Your task to perform on an android device: refresh tabs in the chrome app Image 0: 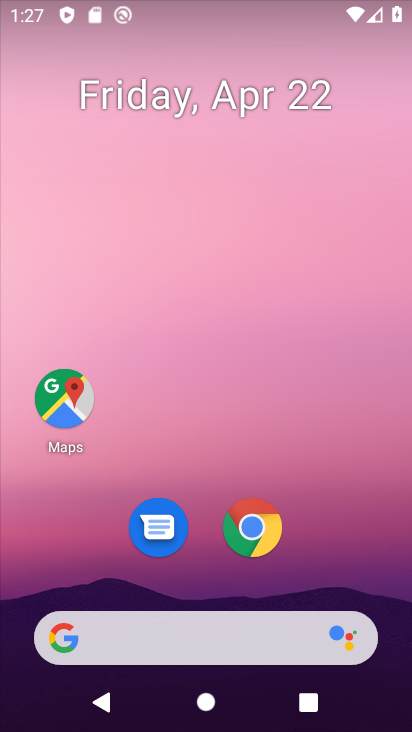
Step 0: drag from (359, 505) to (300, 56)
Your task to perform on an android device: refresh tabs in the chrome app Image 1: 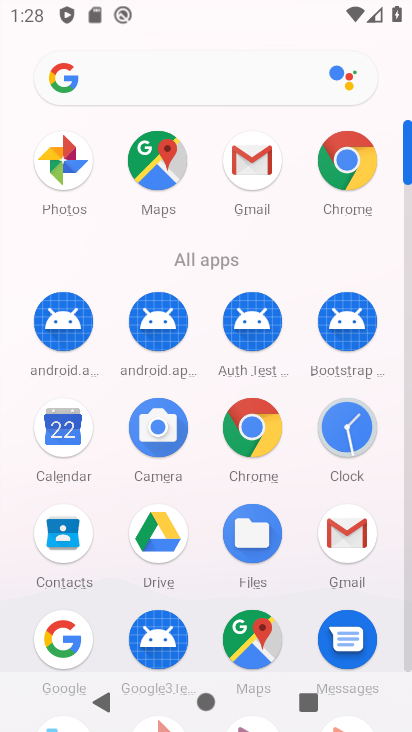
Step 1: click (241, 429)
Your task to perform on an android device: refresh tabs in the chrome app Image 2: 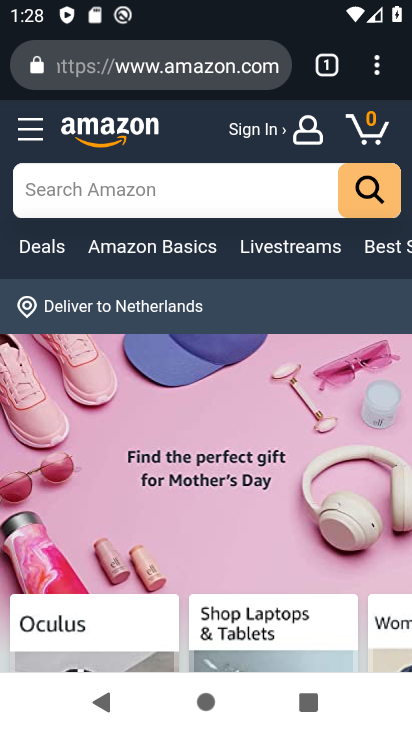
Step 2: press back button
Your task to perform on an android device: refresh tabs in the chrome app Image 3: 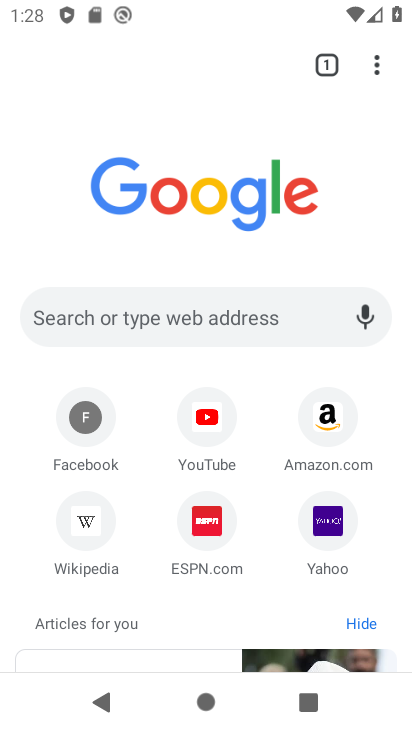
Step 3: click (375, 57)
Your task to perform on an android device: refresh tabs in the chrome app Image 4: 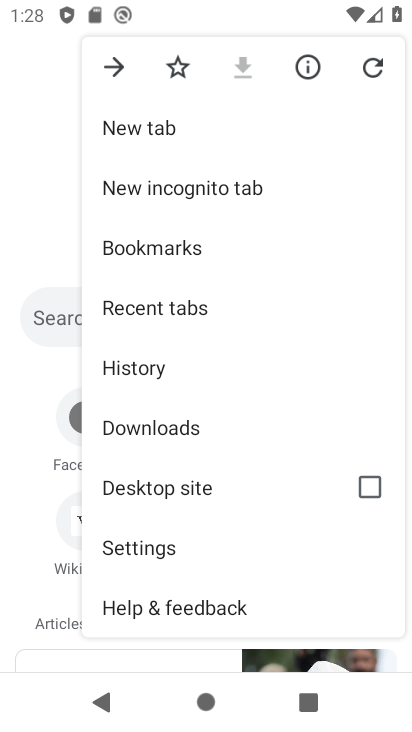
Step 4: click (375, 57)
Your task to perform on an android device: refresh tabs in the chrome app Image 5: 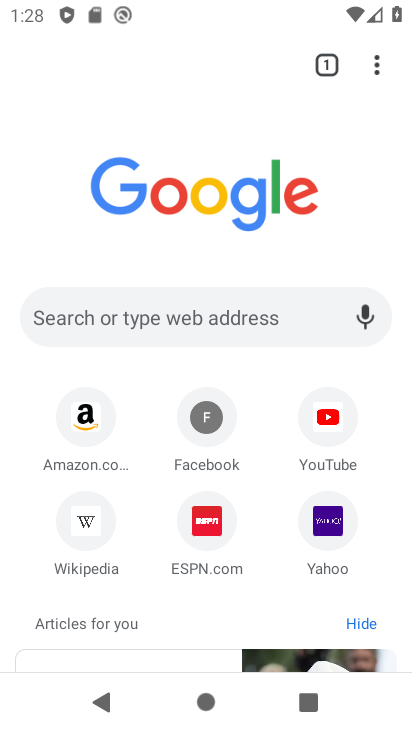
Step 5: task complete